Your task to perform on an android device: check out phone information Image 0: 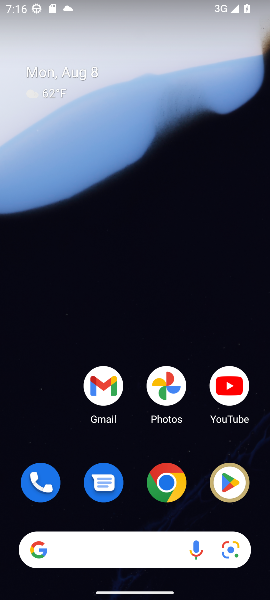
Step 0: drag from (146, 497) to (250, 1)
Your task to perform on an android device: check out phone information Image 1: 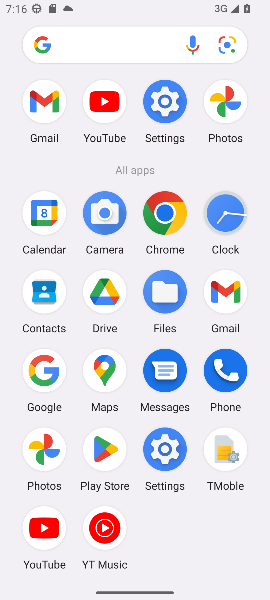
Step 1: click (170, 102)
Your task to perform on an android device: check out phone information Image 2: 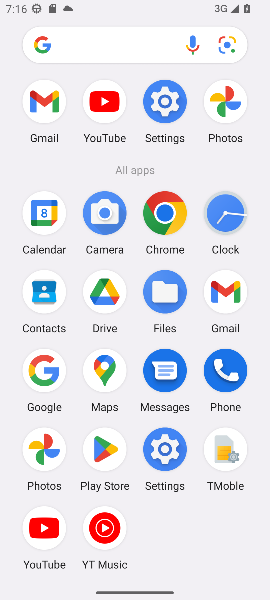
Step 2: click (165, 102)
Your task to perform on an android device: check out phone information Image 3: 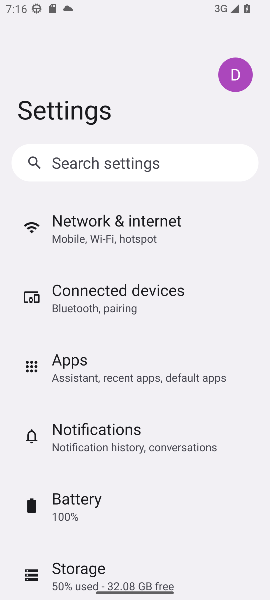
Step 3: drag from (131, 455) to (150, 68)
Your task to perform on an android device: check out phone information Image 4: 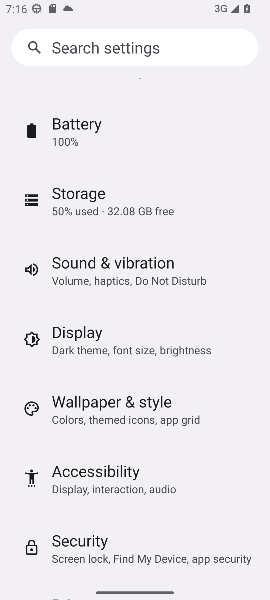
Step 4: drag from (146, 518) to (180, 100)
Your task to perform on an android device: check out phone information Image 5: 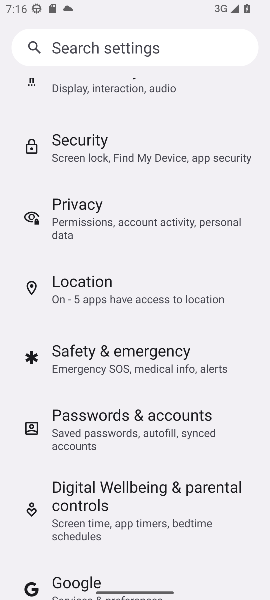
Step 5: drag from (81, 562) to (164, 118)
Your task to perform on an android device: check out phone information Image 6: 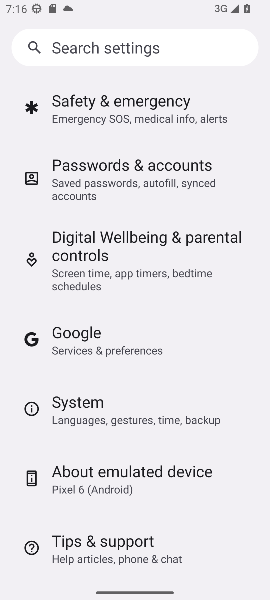
Step 6: drag from (130, 527) to (179, 232)
Your task to perform on an android device: check out phone information Image 7: 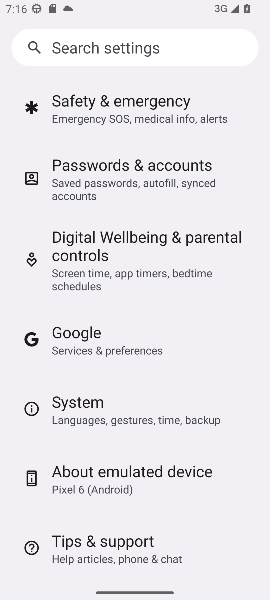
Step 7: click (62, 484)
Your task to perform on an android device: check out phone information Image 8: 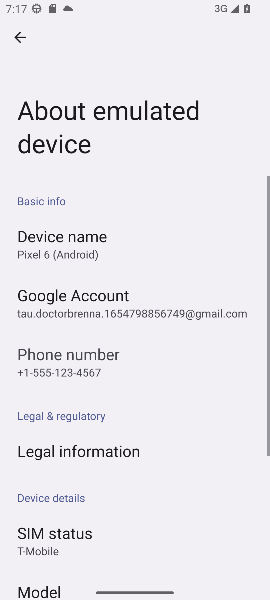
Step 8: task complete